Your task to perform on an android device: allow cookies in the chrome app Image 0: 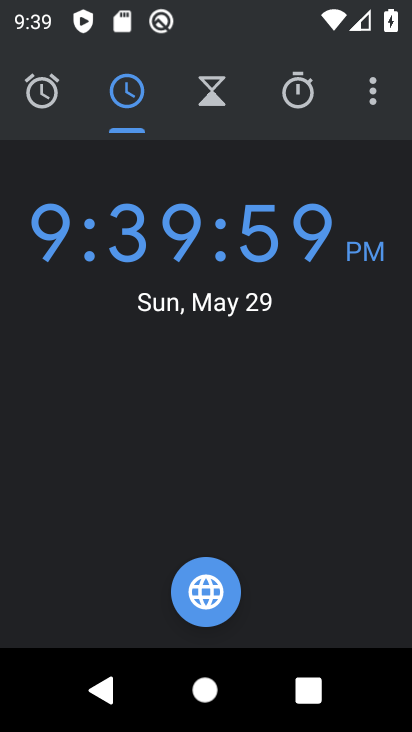
Step 0: press home button
Your task to perform on an android device: allow cookies in the chrome app Image 1: 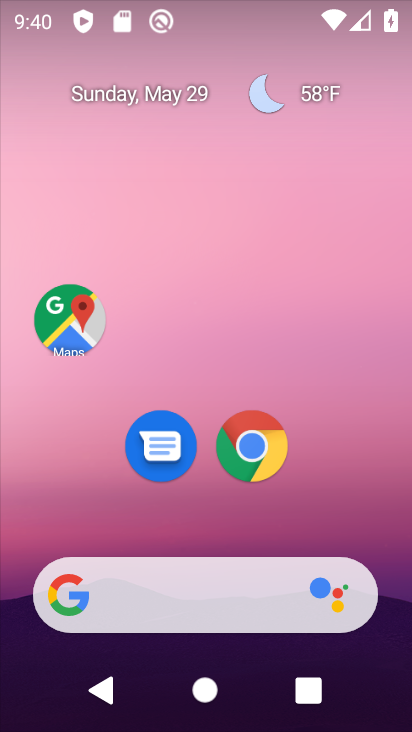
Step 1: click (251, 459)
Your task to perform on an android device: allow cookies in the chrome app Image 2: 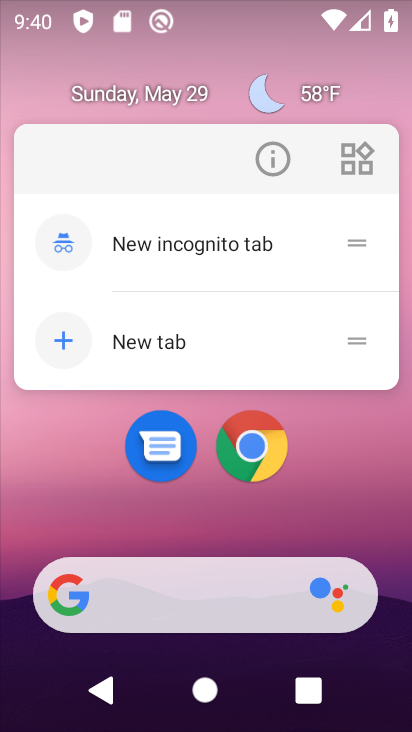
Step 2: click (251, 459)
Your task to perform on an android device: allow cookies in the chrome app Image 3: 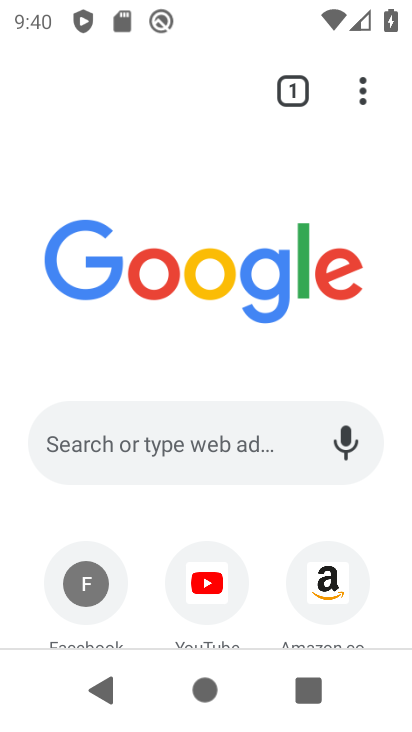
Step 3: click (368, 89)
Your task to perform on an android device: allow cookies in the chrome app Image 4: 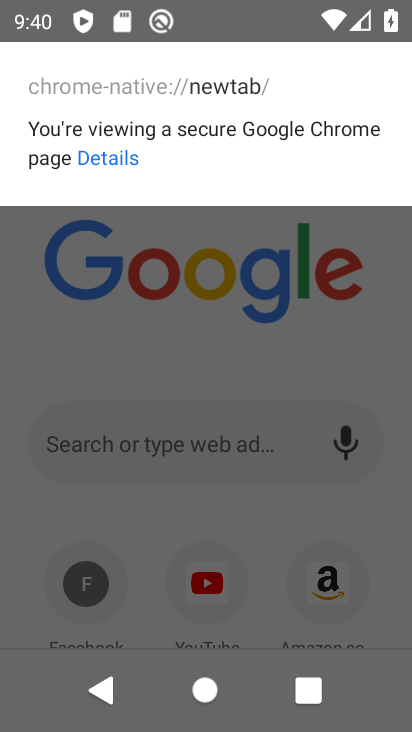
Step 4: click (371, 304)
Your task to perform on an android device: allow cookies in the chrome app Image 5: 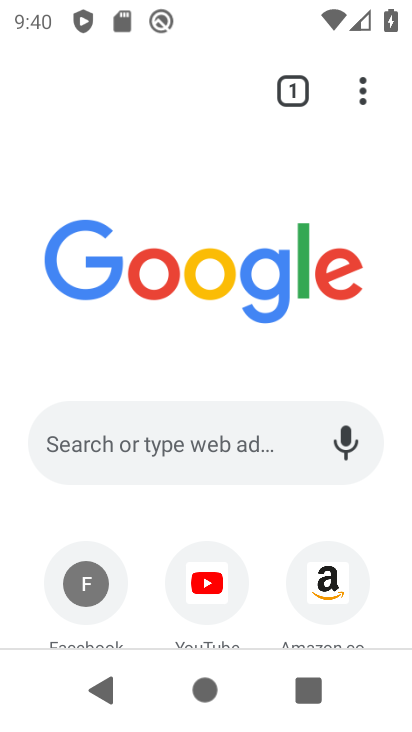
Step 5: click (364, 97)
Your task to perform on an android device: allow cookies in the chrome app Image 6: 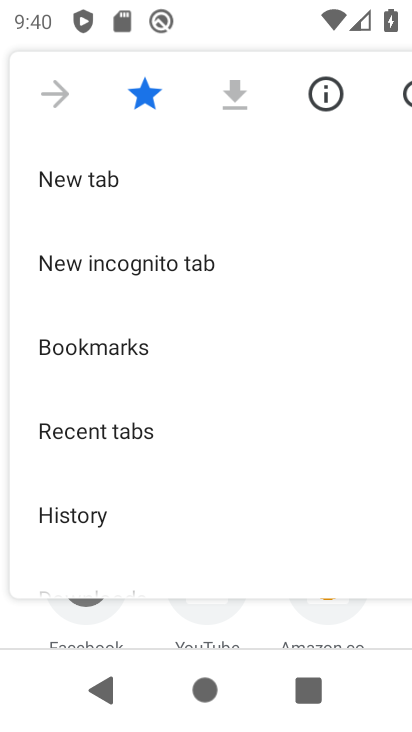
Step 6: drag from (129, 515) to (162, 203)
Your task to perform on an android device: allow cookies in the chrome app Image 7: 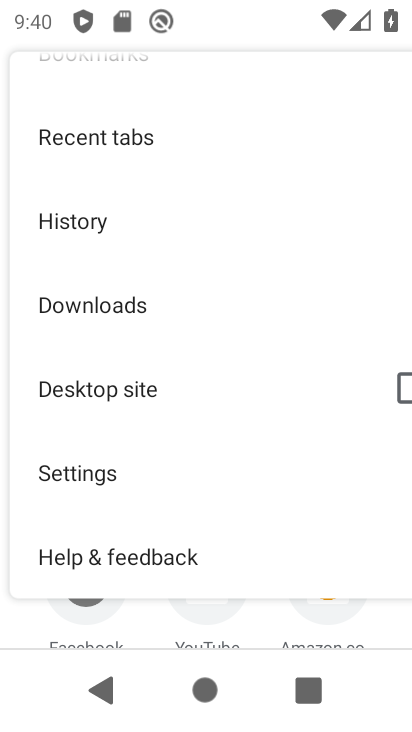
Step 7: click (68, 465)
Your task to perform on an android device: allow cookies in the chrome app Image 8: 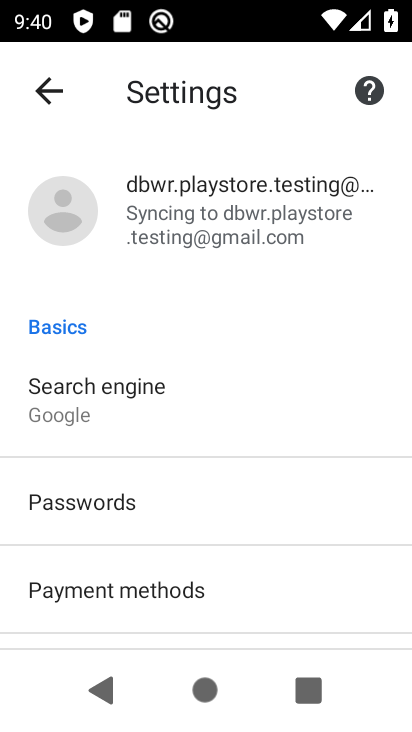
Step 8: drag from (92, 622) to (132, 275)
Your task to perform on an android device: allow cookies in the chrome app Image 9: 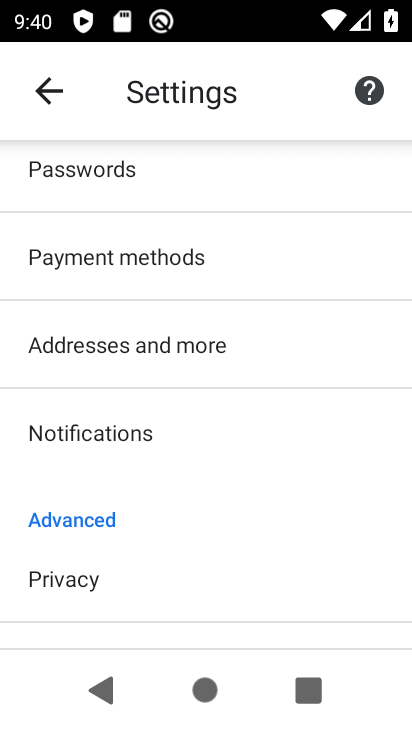
Step 9: drag from (123, 616) to (221, 237)
Your task to perform on an android device: allow cookies in the chrome app Image 10: 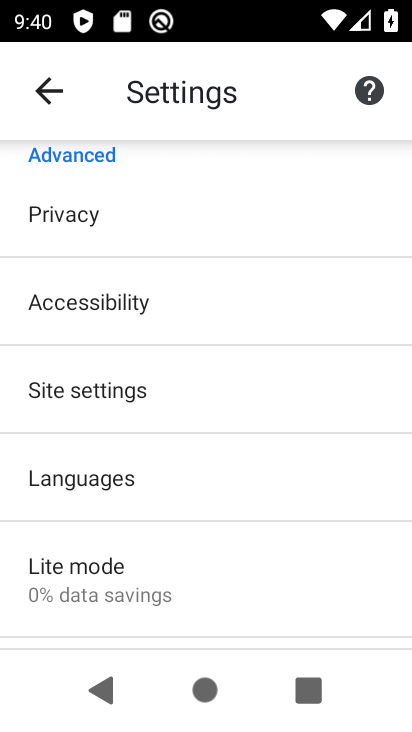
Step 10: click (142, 394)
Your task to perform on an android device: allow cookies in the chrome app Image 11: 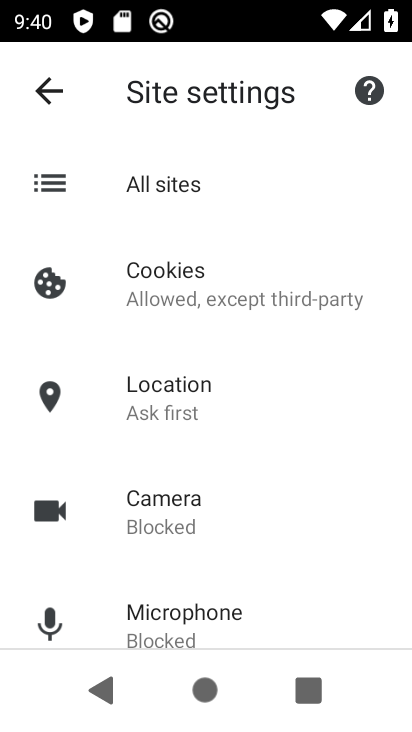
Step 11: click (220, 279)
Your task to perform on an android device: allow cookies in the chrome app Image 12: 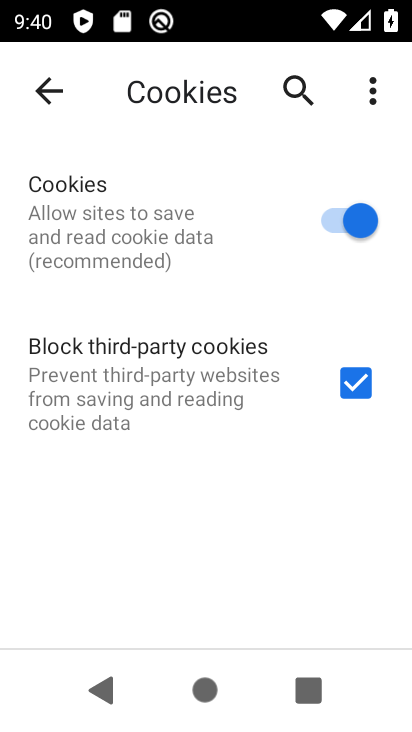
Step 12: task complete